Your task to perform on an android device: Set the phone to "Do not disturb". Image 0: 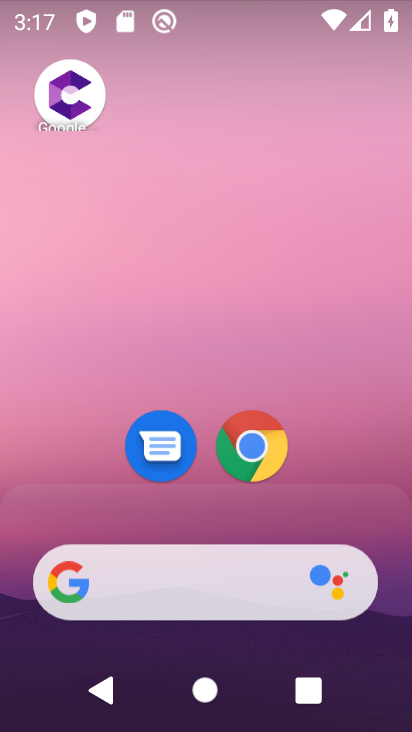
Step 0: drag from (272, 6) to (274, 306)
Your task to perform on an android device: Set the phone to "Do not disturb". Image 1: 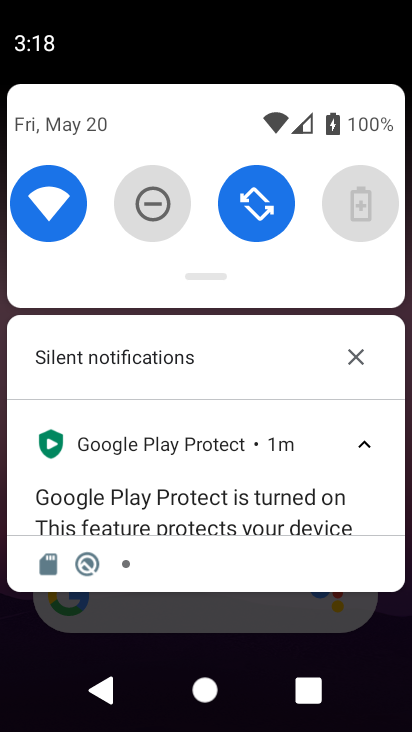
Step 1: click (150, 201)
Your task to perform on an android device: Set the phone to "Do not disturb". Image 2: 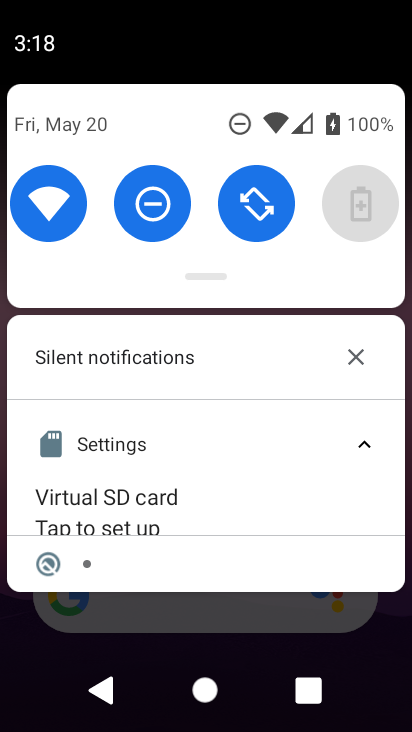
Step 2: task complete